Your task to perform on an android device: open app "TextNow: Call + Text Unlimited" (install if not already installed) and go to login screen Image 0: 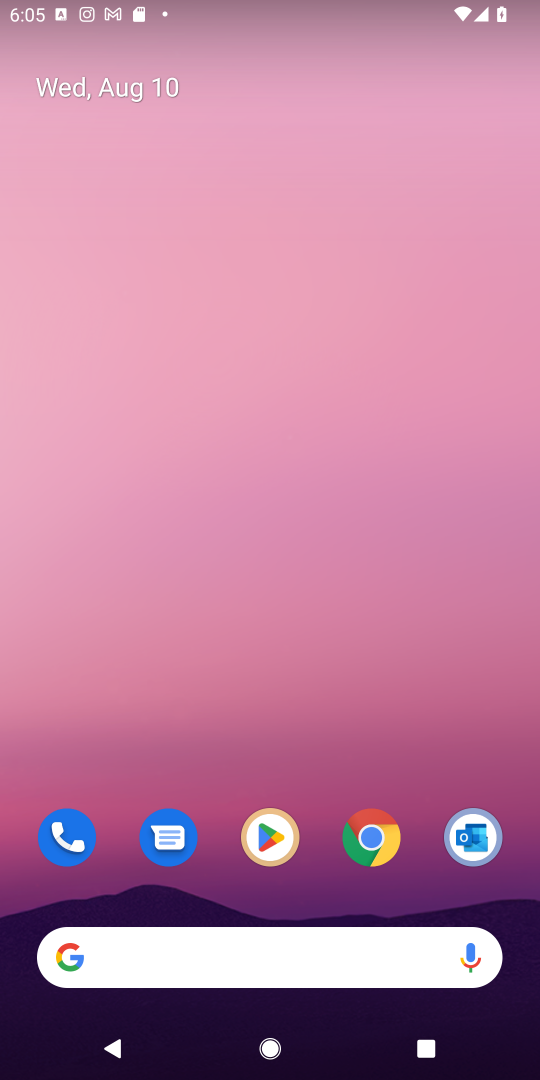
Step 0: click (270, 835)
Your task to perform on an android device: open app "TextNow: Call + Text Unlimited" (install if not already installed) and go to login screen Image 1: 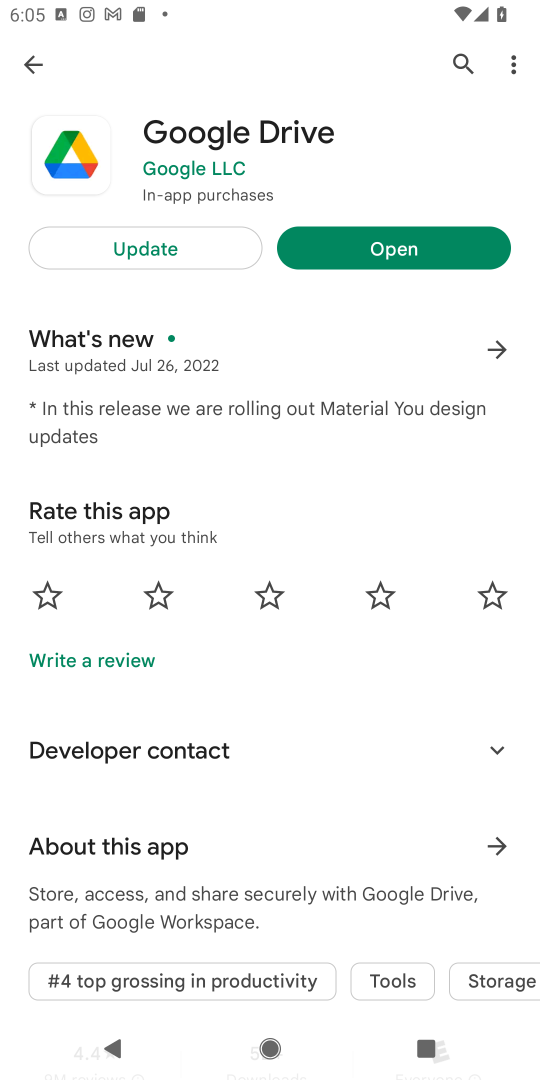
Step 1: click (460, 58)
Your task to perform on an android device: open app "TextNow: Call + Text Unlimited" (install if not already installed) and go to login screen Image 2: 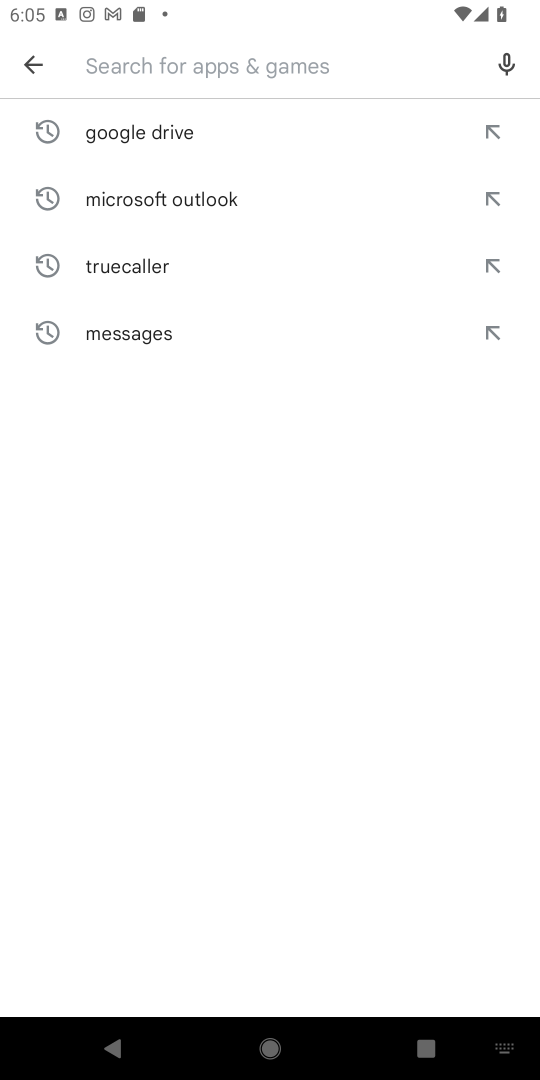
Step 2: type "TextNow: Call + Text Unlimited"
Your task to perform on an android device: open app "TextNow: Call + Text Unlimited" (install if not already installed) and go to login screen Image 3: 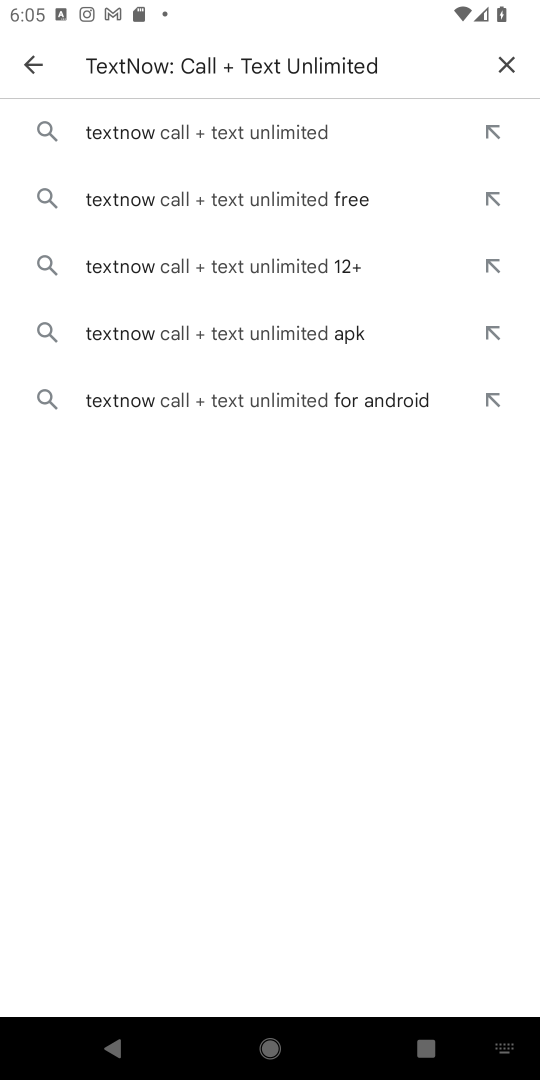
Step 3: click (141, 130)
Your task to perform on an android device: open app "TextNow: Call + Text Unlimited" (install if not already installed) and go to login screen Image 4: 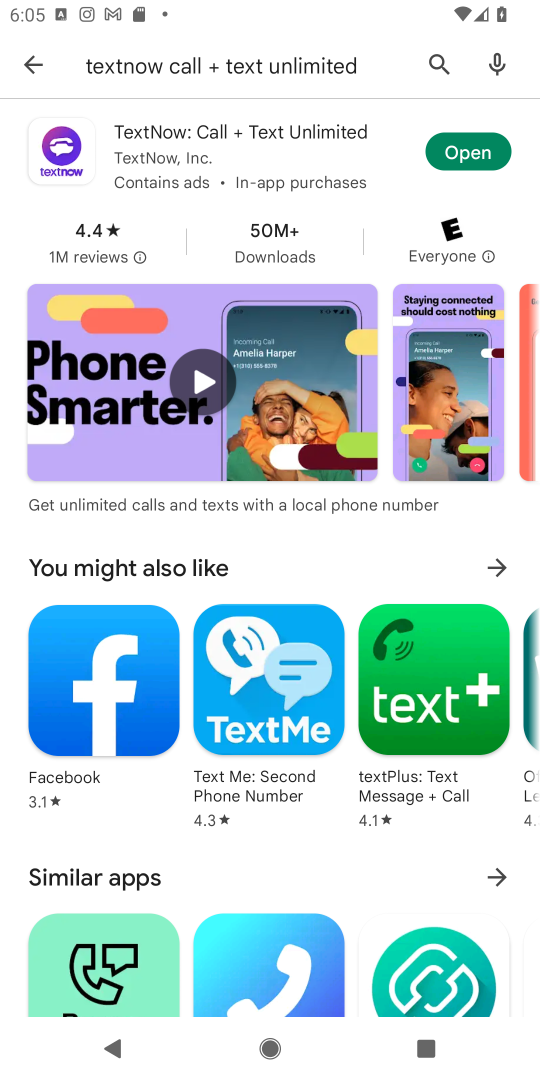
Step 4: click (468, 148)
Your task to perform on an android device: open app "TextNow: Call + Text Unlimited" (install if not already installed) and go to login screen Image 5: 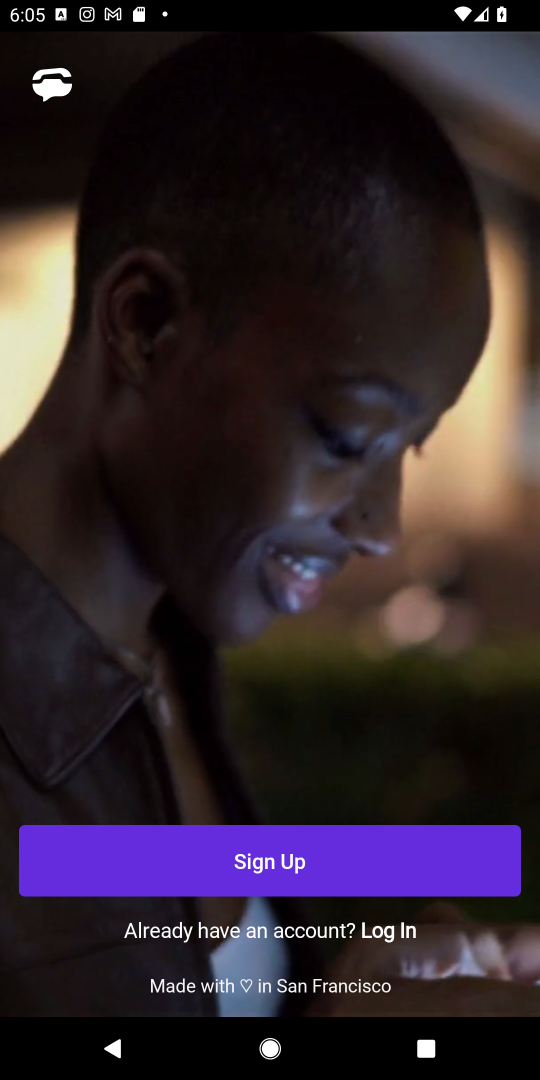
Step 5: click (308, 855)
Your task to perform on an android device: open app "TextNow: Call + Text Unlimited" (install if not already installed) and go to login screen Image 6: 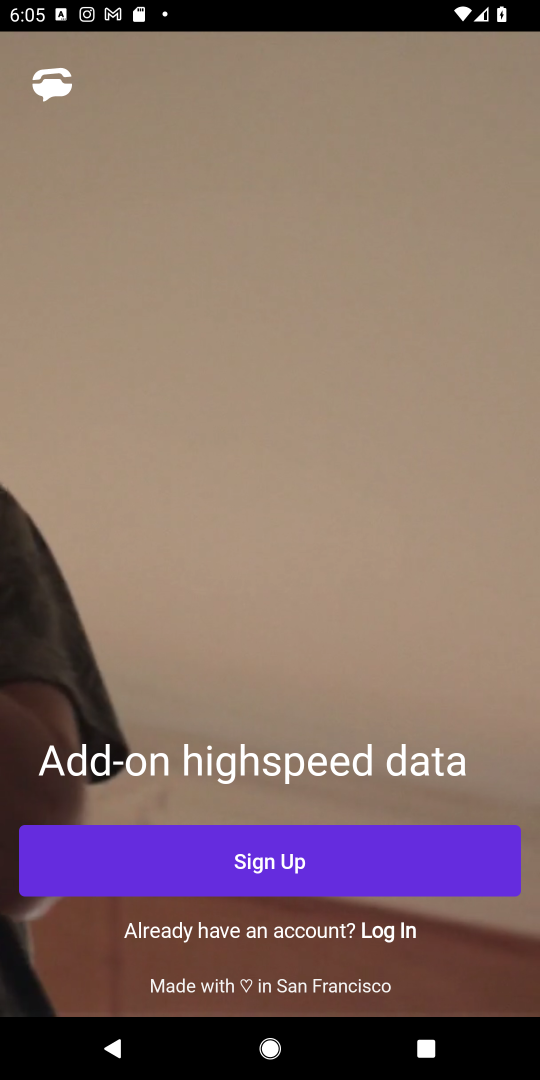
Step 6: task complete